Your task to perform on an android device: delete the emails in spam in the gmail app Image 0: 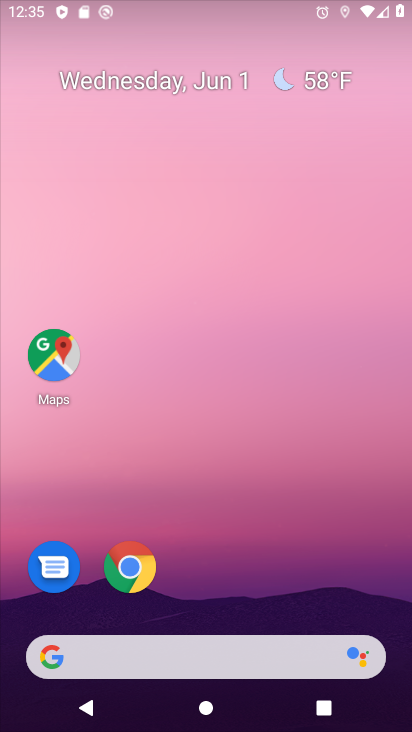
Step 0: press home button
Your task to perform on an android device: delete the emails in spam in the gmail app Image 1: 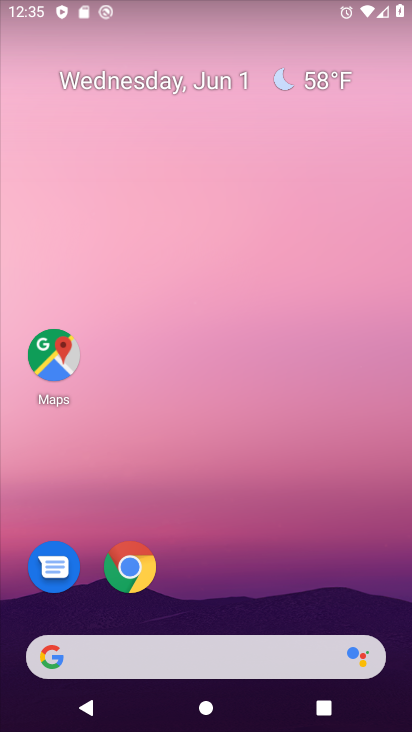
Step 1: drag from (244, 549) to (276, 2)
Your task to perform on an android device: delete the emails in spam in the gmail app Image 2: 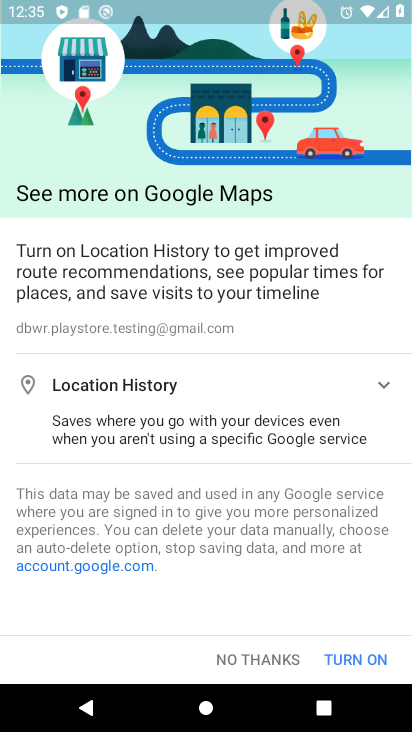
Step 2: press home button
Your task to perform on an android device: delete the emails in spam in the gmail app Image 3: 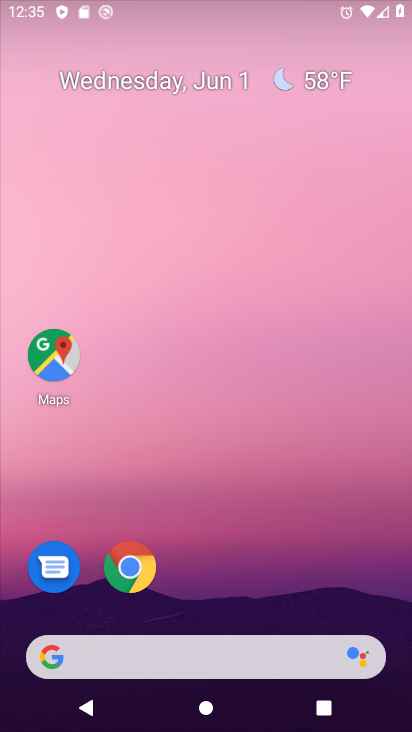
Step 3: drag from (214, 514) to (244, 25)
Your task to perform on an android device: delete the emails in spam in the gmail app Image 4: 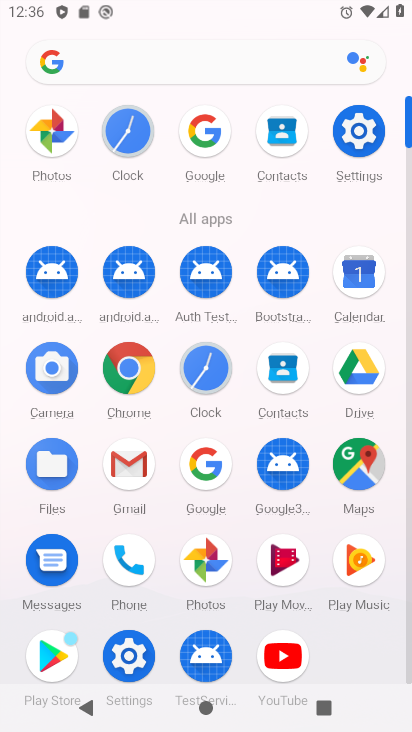
Step 4: click (135, 461)
Your task to perform on an android device: delete the emails in spam in the gmail app Image 5: 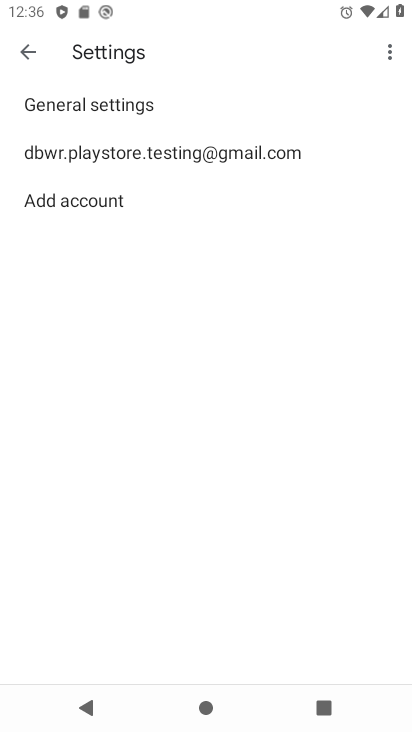
Step 5: press back button
Your task to perform on an android device: delete the emails in spam in the gmail app Image 6: 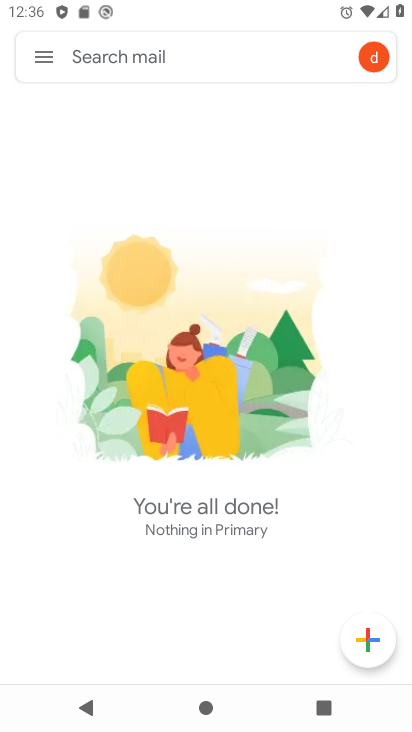
Step 6: click (41, 57)
Your task to perform on an android device: delete the emails in spam in the gmail app Image 7: 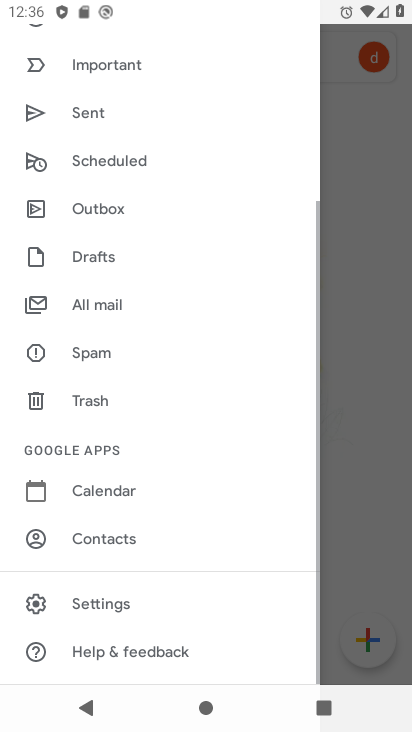
Step 7: click (92, 352)
Your task to perform on an android device: delete the emails in spam in the gmail app Image 8: 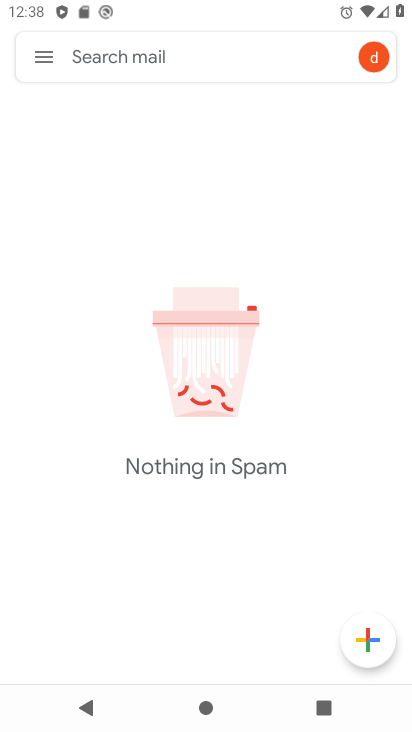
Step 8: task complete